Your task to perform on an android device: Show me recent news Image 0: 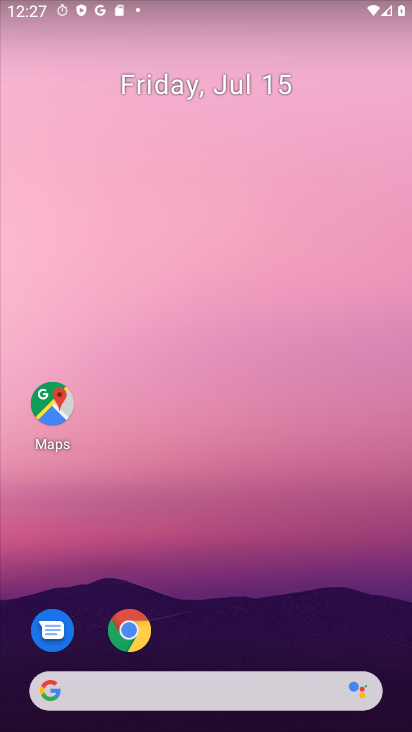
Step 0: drag from (227, 633) to (241, 164)
Your task to perform on an android device: Show me recent news Image 1: 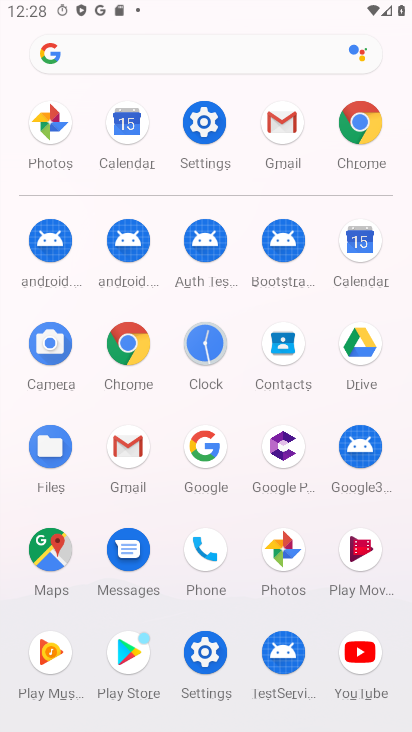
Step 1: click (187, 63)
Your task to perform on an android device: Show me recent news Image 2: 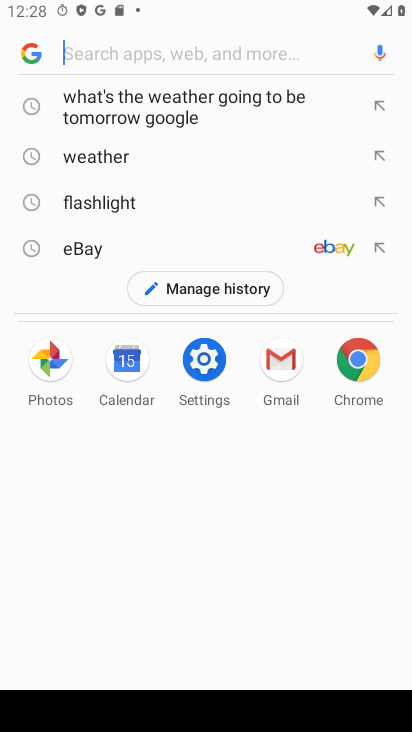
Step 2: type "recent news"
Your task to perform on an android device: Show me recent news Image 3: 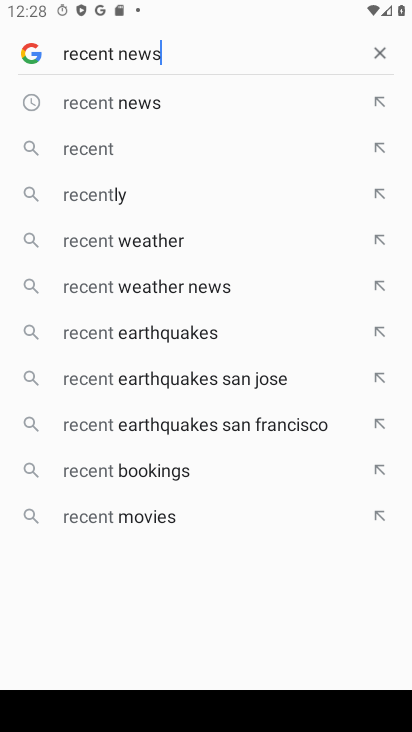
Step 3: type ""
Your task to perform on an android device: Show me recent news Image 4: 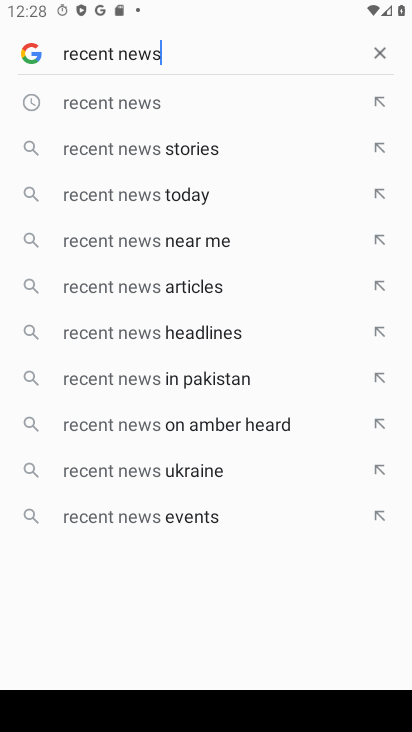
Step 4: click (112, 95)
Your task to perform on an android device: Show me recent news Image 5: 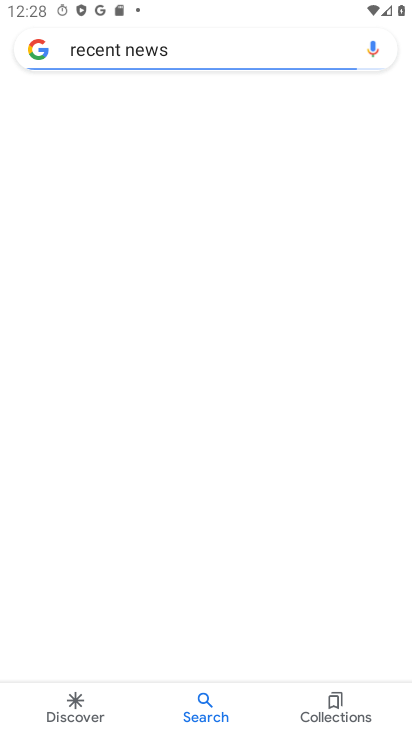
Step 5: task complete